Your task to perform on an android device: Search for hotels in Orlando Image 0: 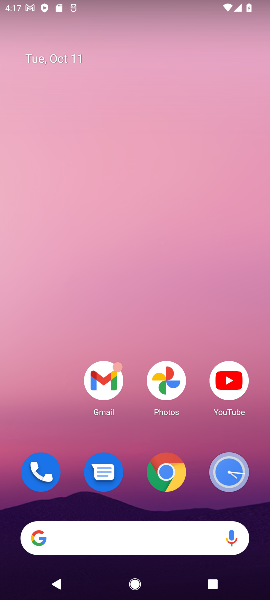
Step 0: drag from (155, 498) to (113, 26)
Your task to perform on an android device: Search for hotels in Orlando Image 1: 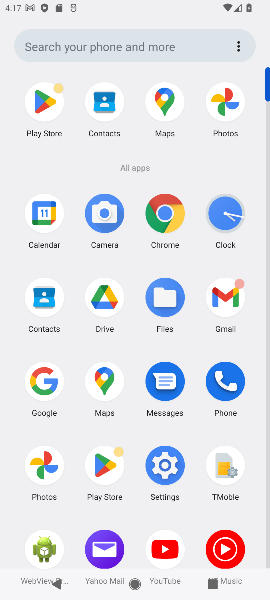
Step 1: click (107, 385)
Your task to perform on an android device: Search for hotels in Orlando Image 2: 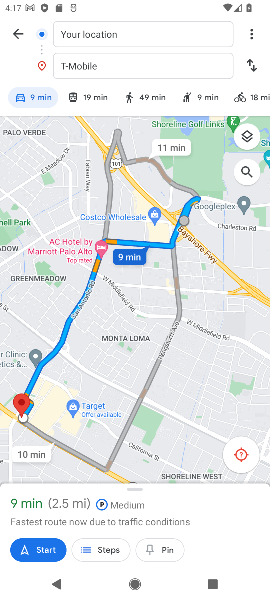
Step 2: click (163, 27)
Your task to perform on an android device: Search for hotels in Orlando Image 3: 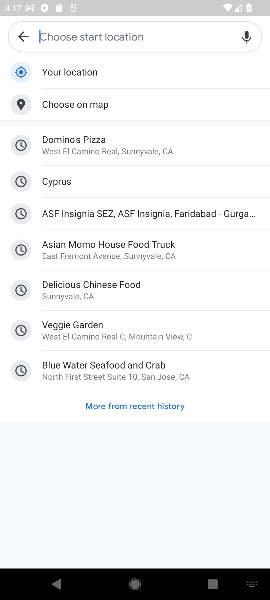
Step 3: click (22, 29)
Your task to perform on an android device: Search for hotels in Orlando Image 4: 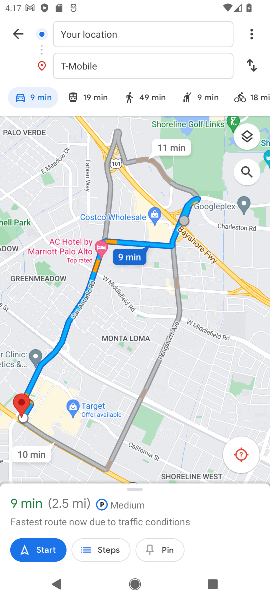
Step 4: click (22, 32)
Your task to perform on an android device: Search for hotels in Orlando Image 5: 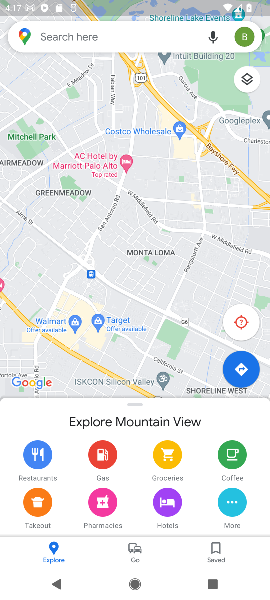
Step 5: click (97, 40)
Your task to perform on an android device: Search for hotels in Orlando Image 6: 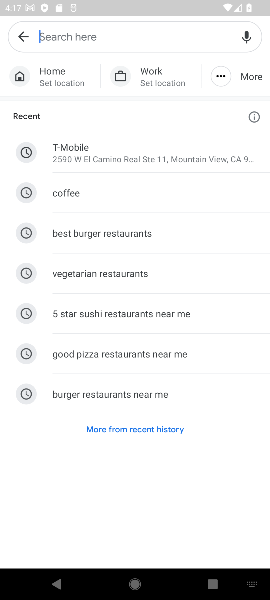
Step 6: type "Search for hotels in Orlando"
Your task to perform on an android device: Search for hotels in Orlando Image 7: 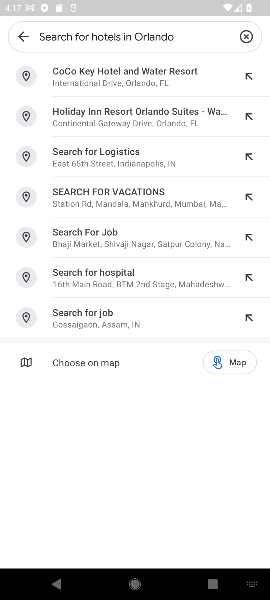
Step 7: click (155, 75)
Your task to perform on an android device: Search for hotels in Orlando Image 8: 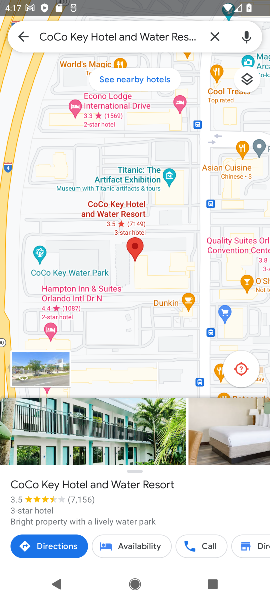
Step 8: task complete